Your task to perform on an android device: Is it going to rain this weekend? Image 0: 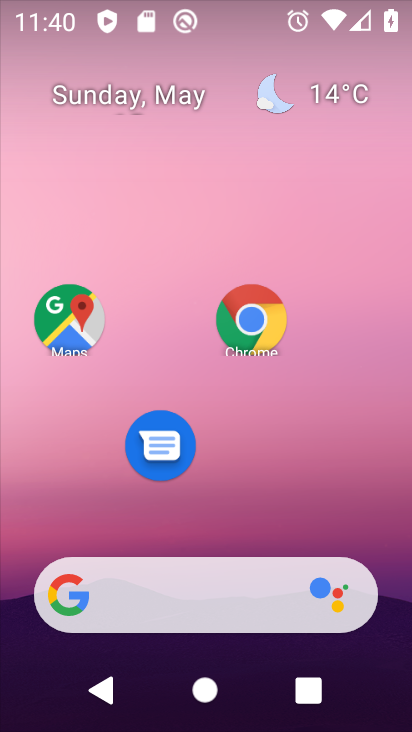
Step 0: click (324, 93)
Your task to perform on an android device: Is it going to rain this weekend? Image 1: 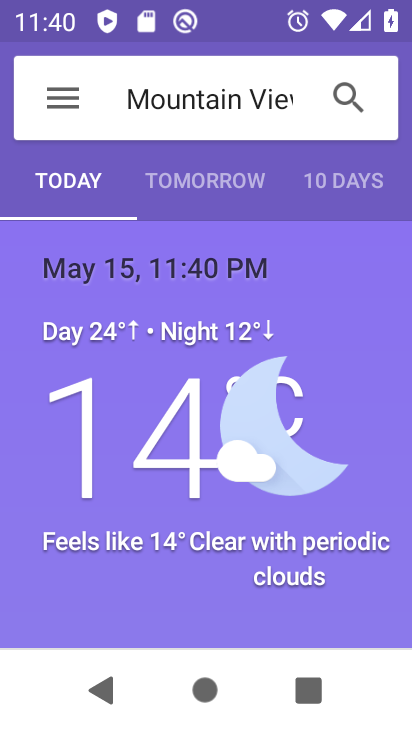
Step 1: drag from (352, 183) to (315, 183)
Your task to perform on an android device: Is it going to rain this weekend? Image 2: 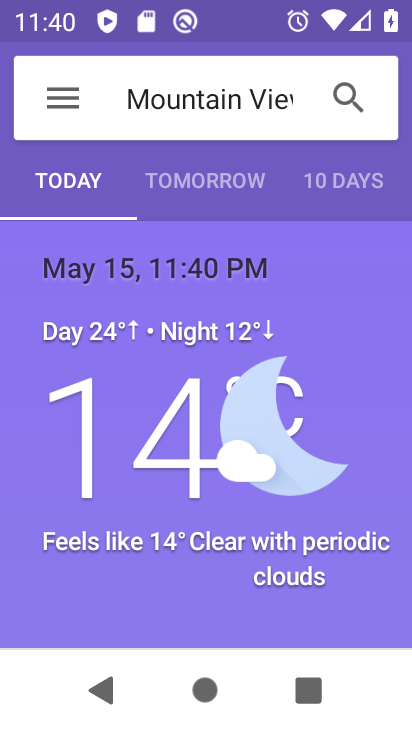
Step 2: click (346, 183)
Your task to perform on an android device: Is it going to rain this weekend? Image 3: 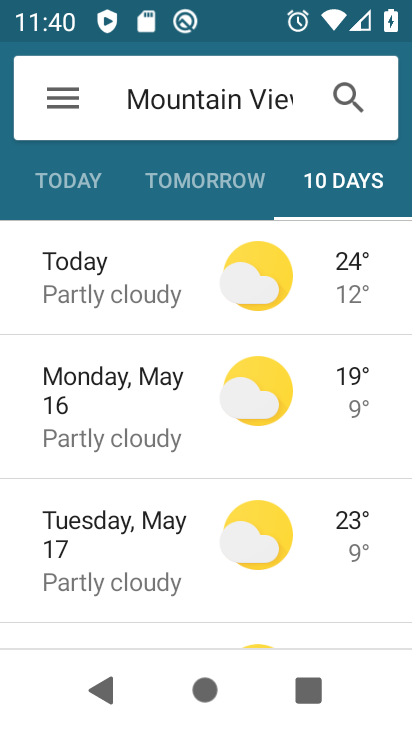
Step 3: drag from (161, 609) to (323, 231)
Your task to perform on an android device: Is it going to rain this weekend? Image 4: 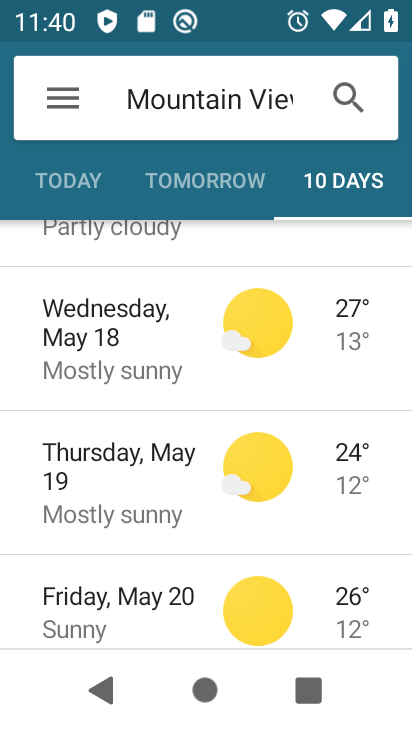
Step 4: drag from (145, 564) to (260, 221)
Your task to perform on an android device: Is it going to rain this weekend? Image 5: 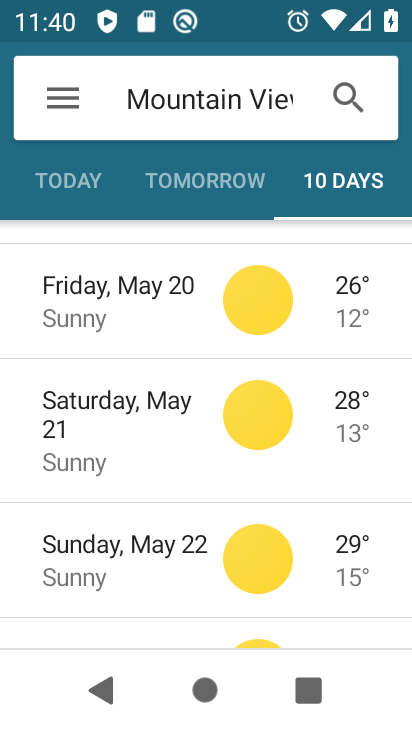
Step 5: click (137, 426)
Your task to perform on an android device: Is it going to rain this weekend? Image 6: 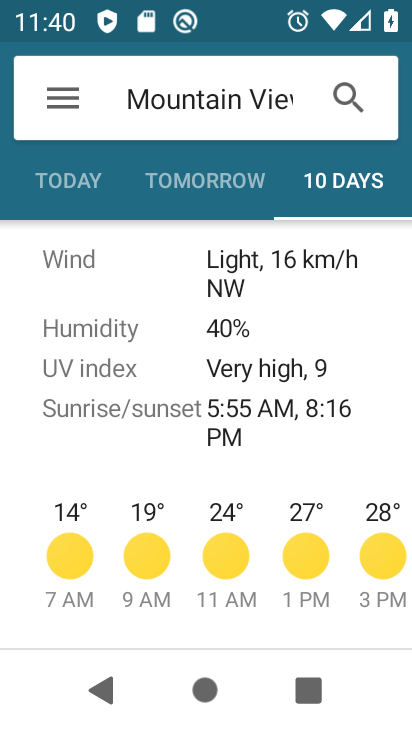
Step 6: task complete